Your task to perform on an android device: turn on improve location accuracy Image 0: 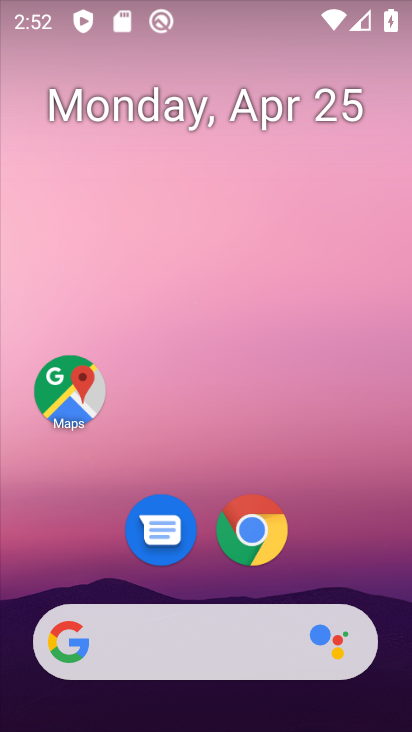
Step 0: drag from (184, 596) to (251, 93)
Your task to perform on an android device: turn on improve location accuracy Image 1: 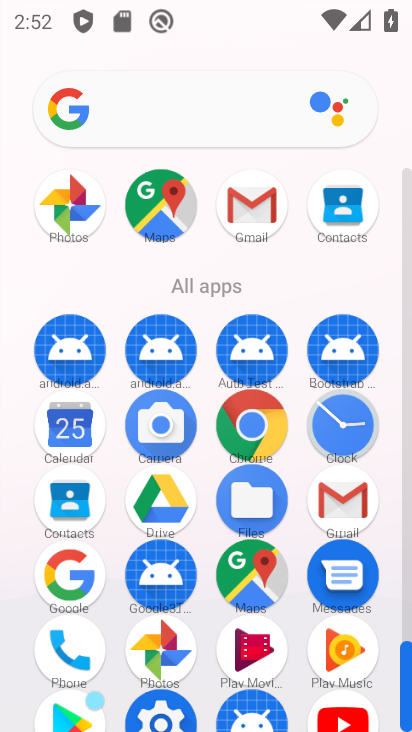
Step 1: drag from (160, 639) to (193, 394)
Your task to perform on an android device: turn on improve location accuracy Image 2: 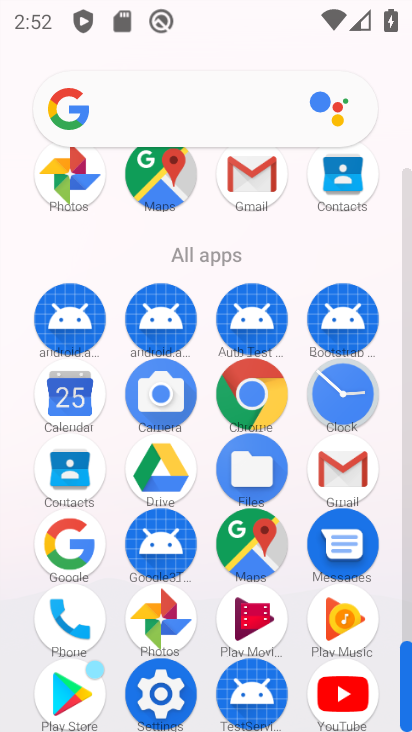
Step 2: click (152, 692)
Your task to perform on an android device: turn on improve location accuracy Image 3: 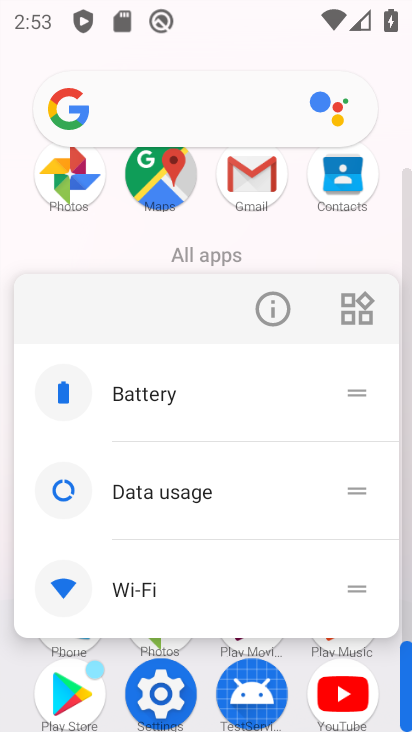
Step 3: click (152, 692)
Your task to perform on an android device: turn on improve location accuracy Image 4: 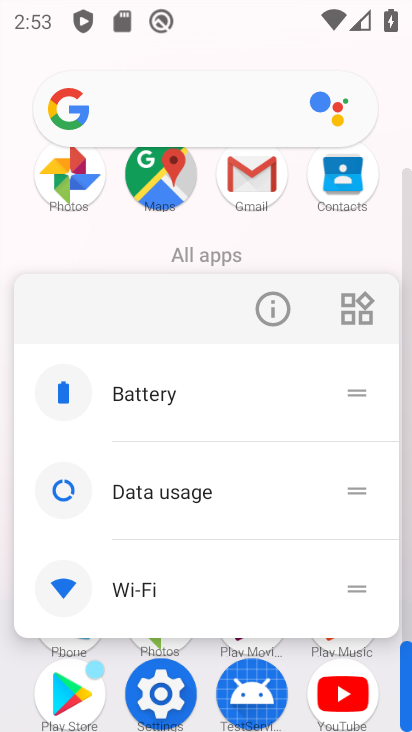
Step 4: click (151, 691)
Your task to perform on an android device: turn on improve location accuracy Image 5: 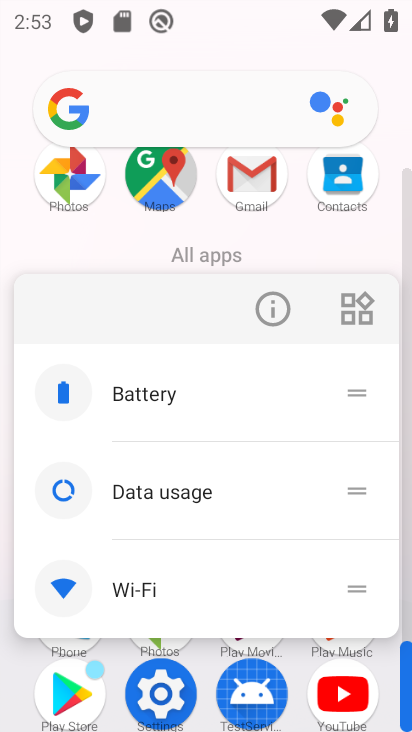
Step 5: click (150, 690)
Your task to perform on an android device: turn on improve location accuracy Image 6: 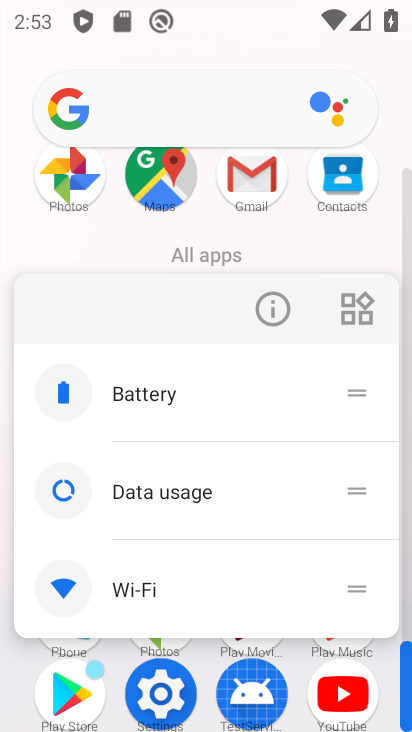
Step 6: click (182, 692)
Your task to perform on an android device: turn on improve location accuracy Image 7: 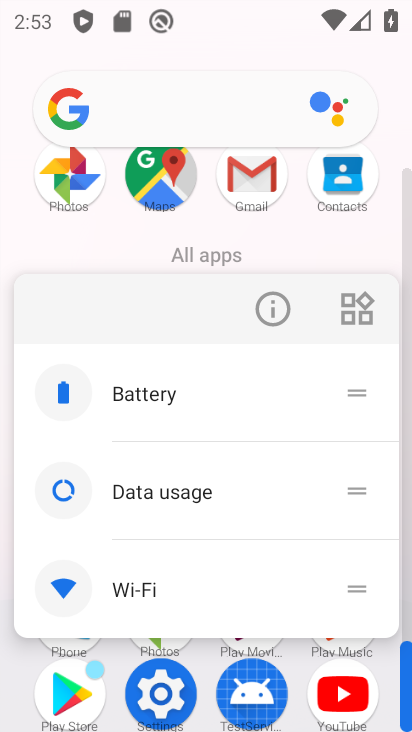
Step 7: click (182, 692)
Your task to perform on an android device: turn on improve location accuracy Image 8: 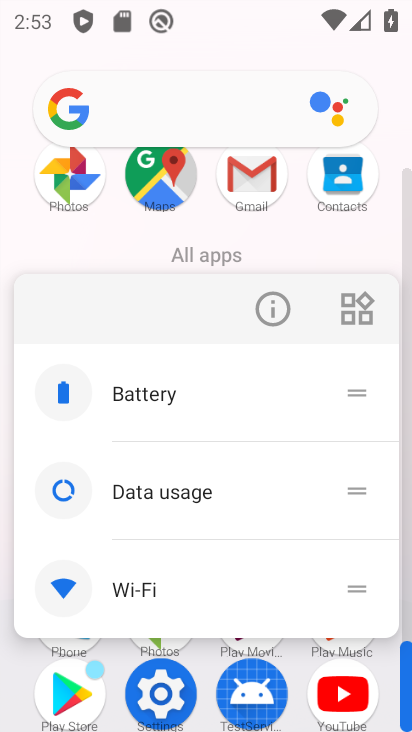
Step 8: click (180, 690)
Your task to perform on an android device: turn on improve location accuracy Image 9: 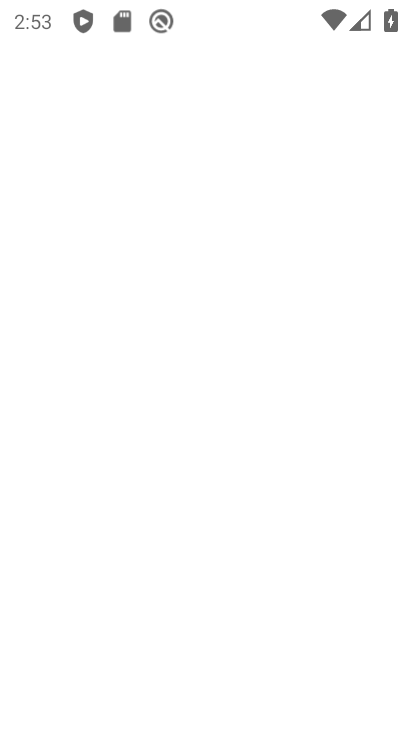
Step 9: click (155, 706)
Your task to perform on an android device: turn on improve location accuracy Image 10: 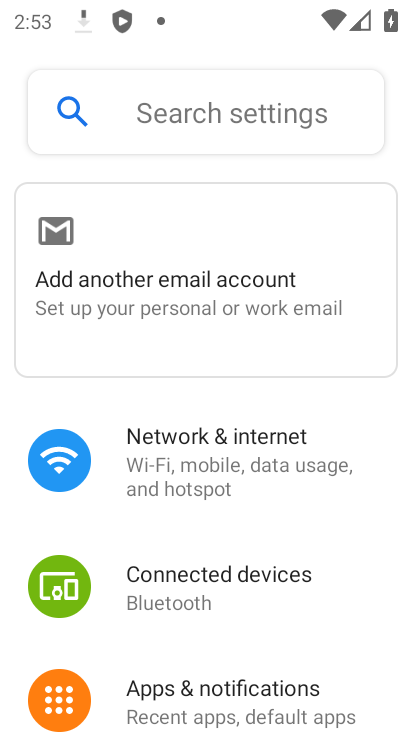
Step 10: drag from (76, 685) to (227, 95)
Your task to perform on an android device: turn on improve location accuracy Image 11: 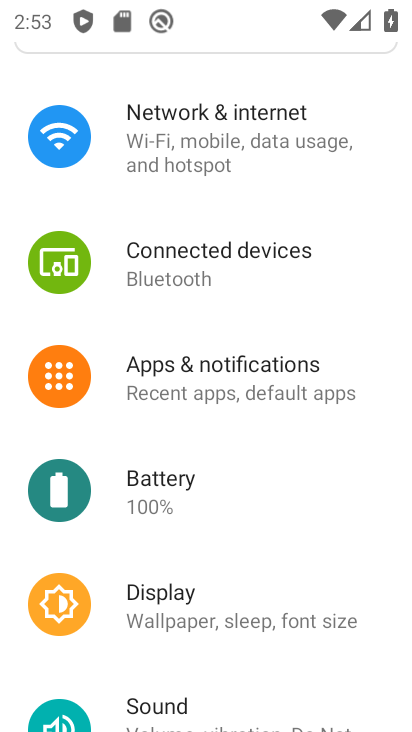
Step 11: drag from (141, 568) to (276, 174)
Your task to perform on an android device: turn on improve location accuracy Image 12: 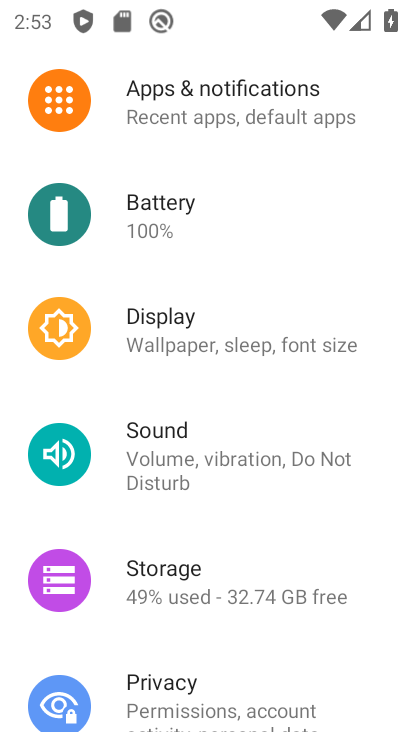
Step 12: drag from (145, 672) to (264, 206)
Your task to perform on an android device: turn on improve location accuracy Image 13: 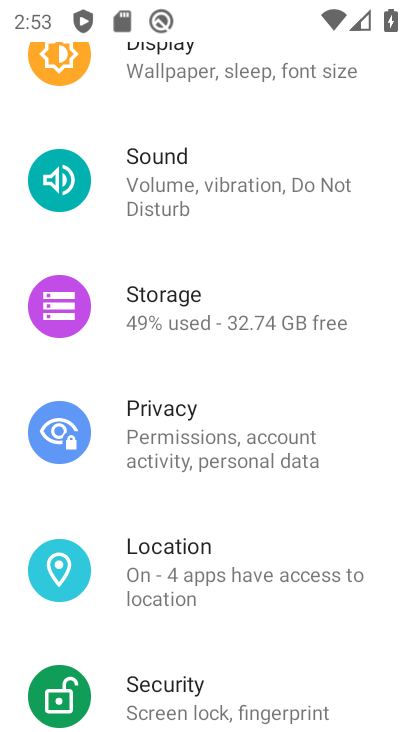
Step 13: click (187, 581)
Your task to perform on an android device: turn on improve location accuracy Image 14: 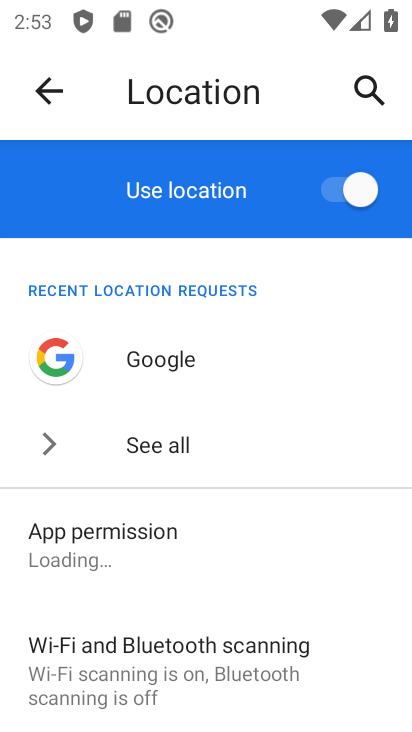
Step 14: drag from (180, 604) to (263, 238)
Your task to perform on an android device: turn on improve location accuracy Image 15: 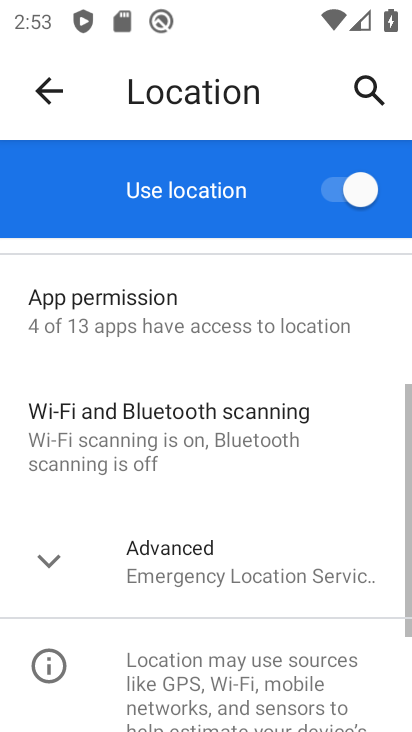
Step 15: click (197, 562)
Your task to perform on an android device: turn on improve location accuracy Image 16: 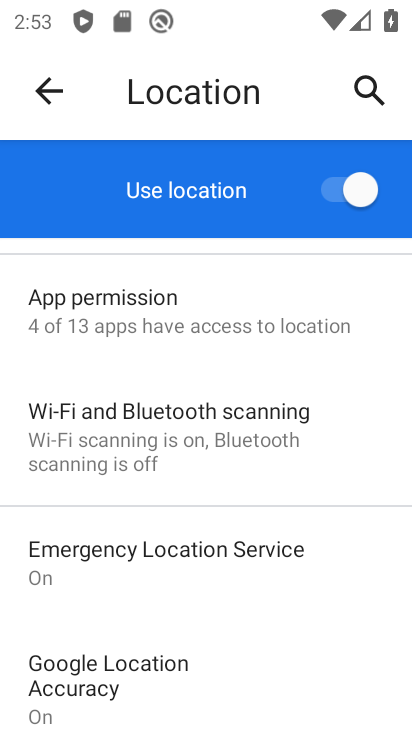
Step 16: drag from (146, 638) to (185, 395)
Your task to perform on an android device: turn on improve location accuracy Image 17: 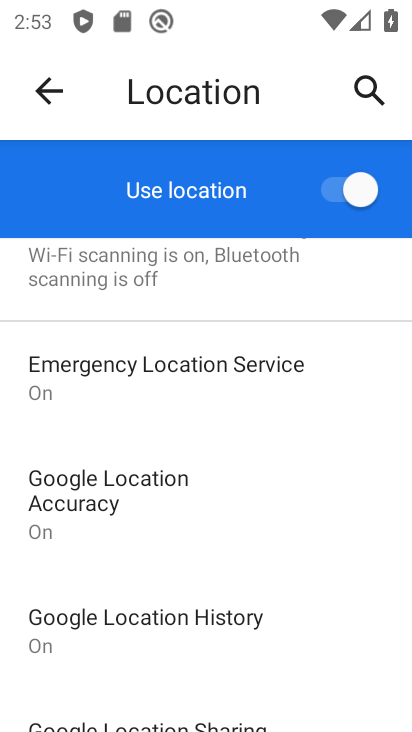
Step 17: click (122, 502)
Your task to perform on an android device: turn on improve location accuracy Image 18: 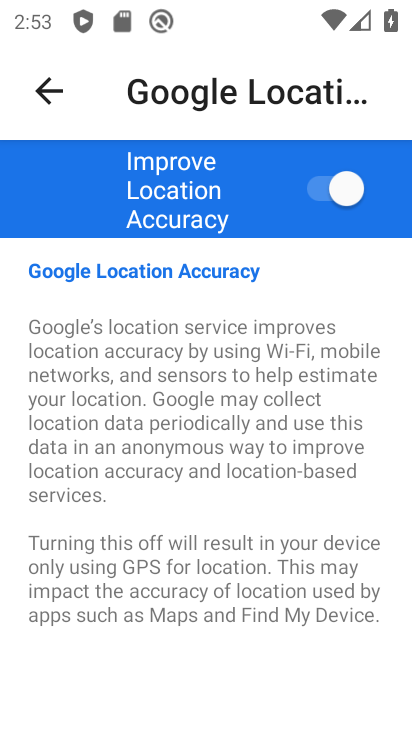
Step 18: task complete